Your task to perform on an android device: turn smart compose on in the gmail app Image 0: 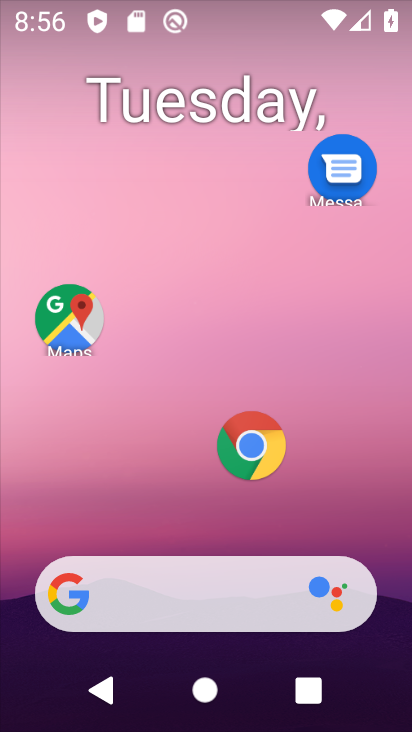
Step 0: click (329, 167)
Your task to perform on an android device: turn smart compose on in the gmail app Image 1: 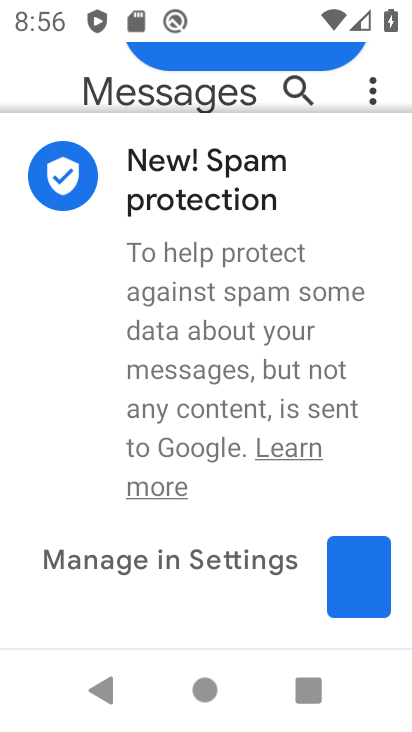
Step 1: press back button
Your task to perform on an android device: turn smart compose on in the gmail app Image 2: 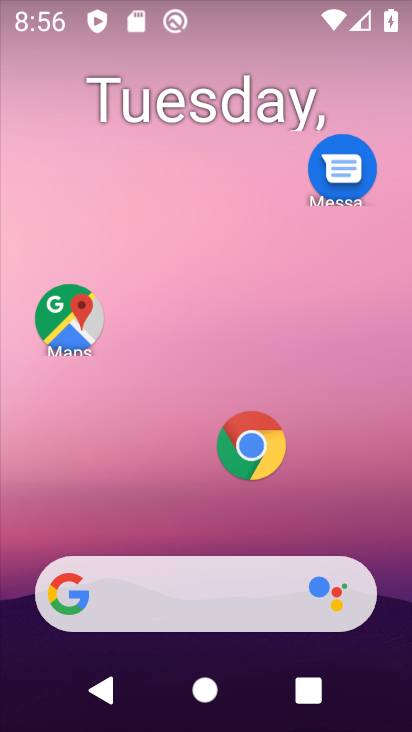
Step 2: drag from (52, 544) to (211, 197)
Your task to perform on an android device: turn smart compose on in the gmail app Image 3: 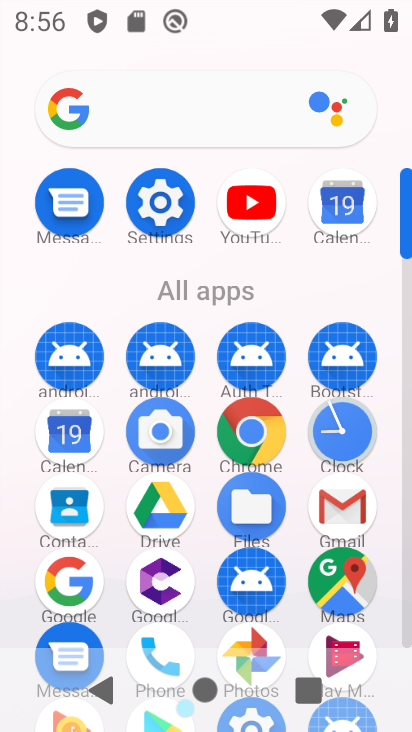
Step 3: click (348, 509)
Your task to perform on an android device: turn smart compose on in the gmail app Image 4: 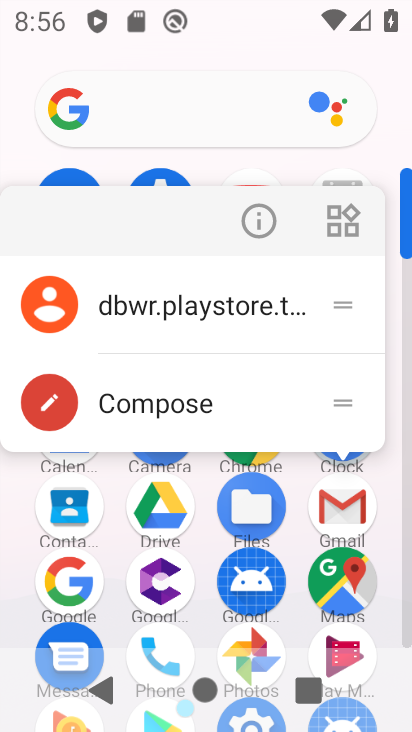
Step 4: click (347, 509)
Your task to perform on an android device: turn smart compose on in the gmail app Image 5: 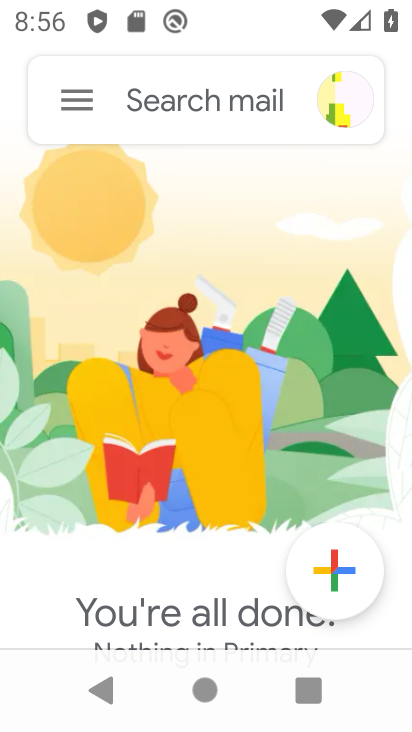
Step 5: click (86, 105)
Your task to perform on an android device: turn smart compose on in the gmail app Image 6: 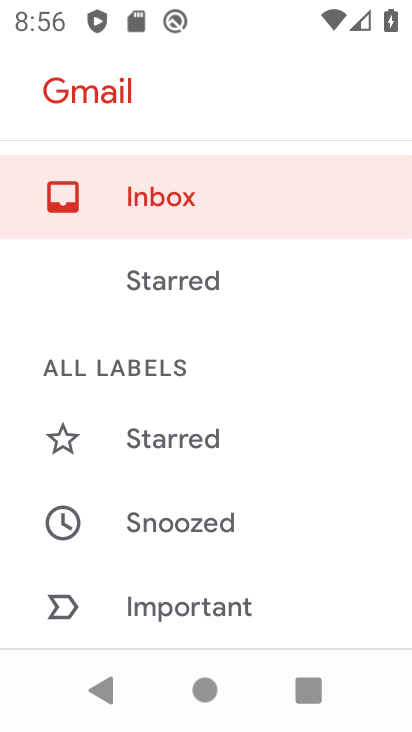
Step 6: drag from (205, 559) to (295, 256)
Your task to perform on an android device: turn smart compose on in the gmail app Image 7: 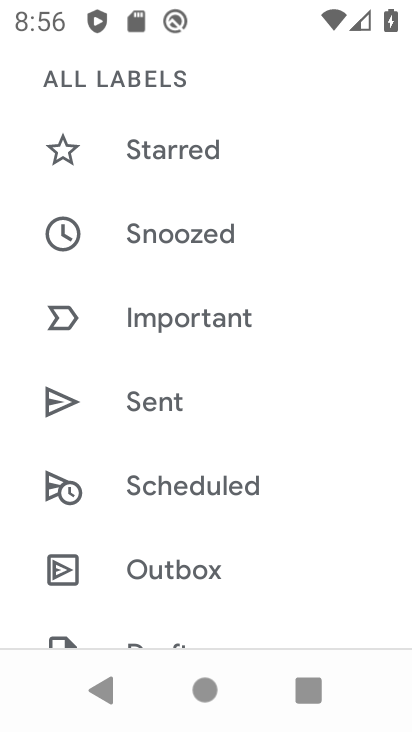
Step 7: drag from (66, 596) to (167, 296)
Your task to perform on an android device: turn smart compose on in the gmail app Image 8: 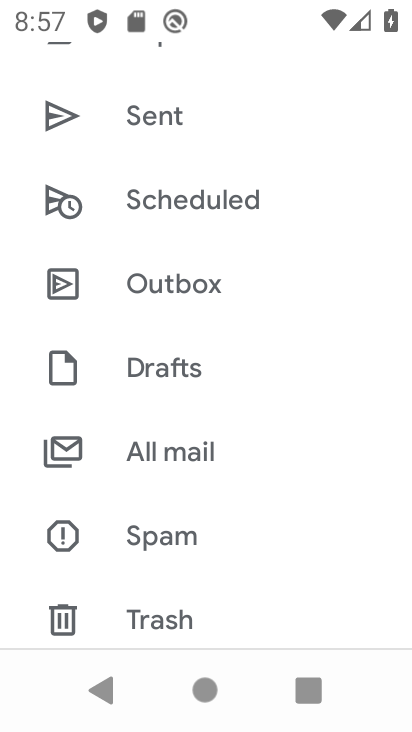
Step 8: drag from (113, 483) to (178, 256)
Your task to perform on an android device: turn smart compose on in the gmail app Image 9: 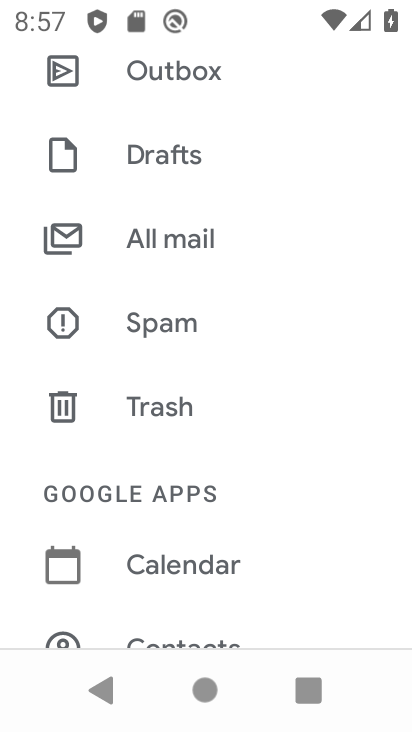
Step 9: drag from (116, 630) to (244, 310)
Your task to perform on an android device: turn smart compose on in the gmail app Image 10: 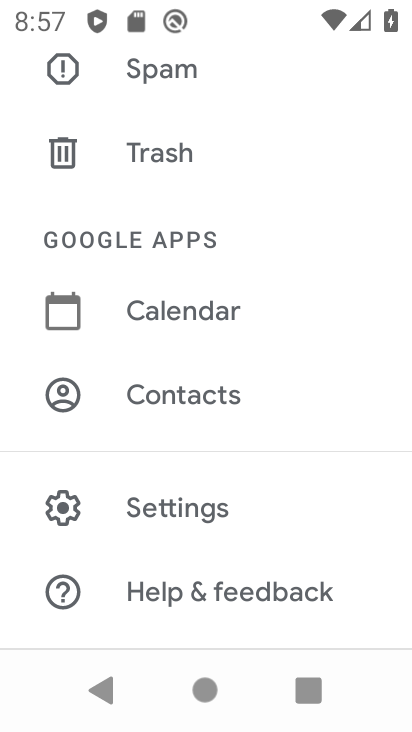
Step 10: click (168, 508)
Your task to perform on an android device: turn smart compose on in the gmail app Image 11: 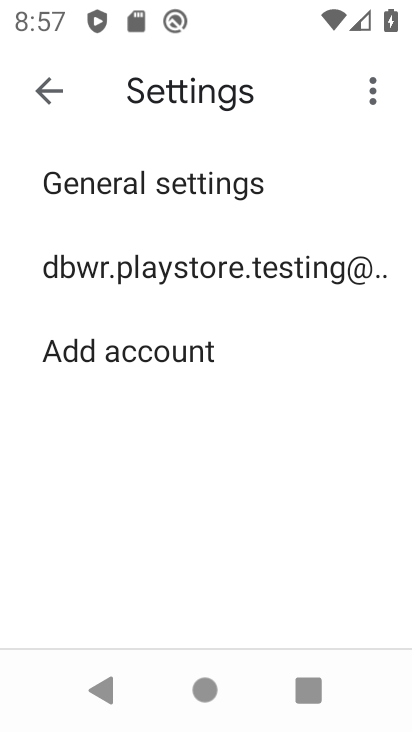
Step 11: click (158, 260)
Your task to perform on an android device: turn smart compose on in the gmail app Image 12: 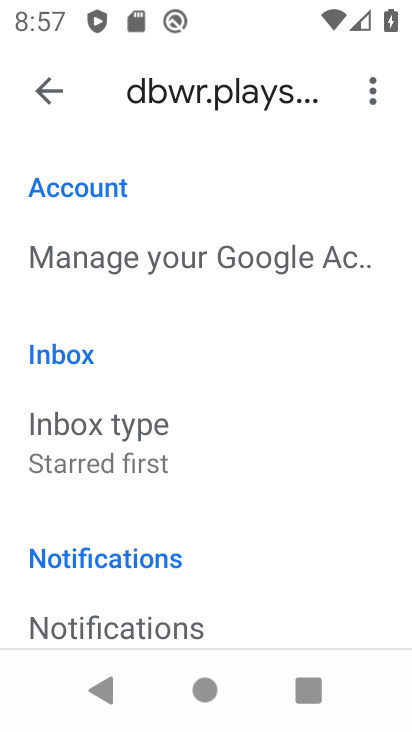
Step 12: task complete